Your task to perform on an android device: turn notification dots off Image 0: 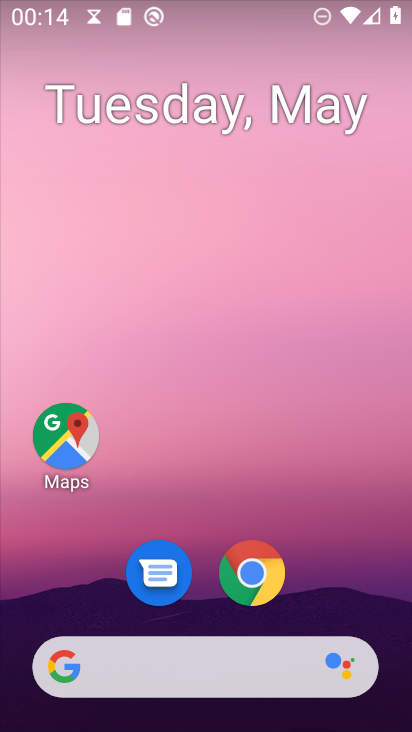
Step 0: drag from (353, 535) to (233, 35)
Your task to perform on an android device: turn notification dots off Image 1: 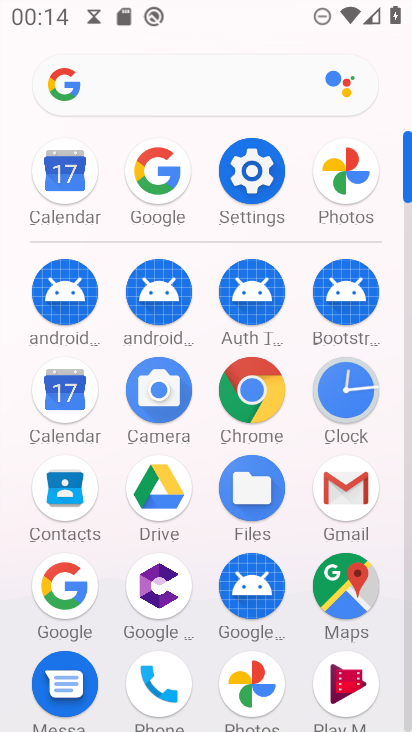
Step 1: click (342, 387)
Your task to perform on an android device: turn notification dots off Image 2: 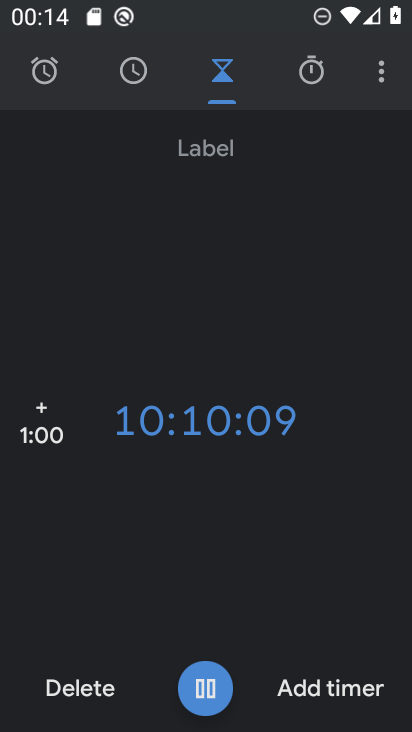
Step 2: press home button
Your task to perform on an android device: turn notification dots off Image 3: 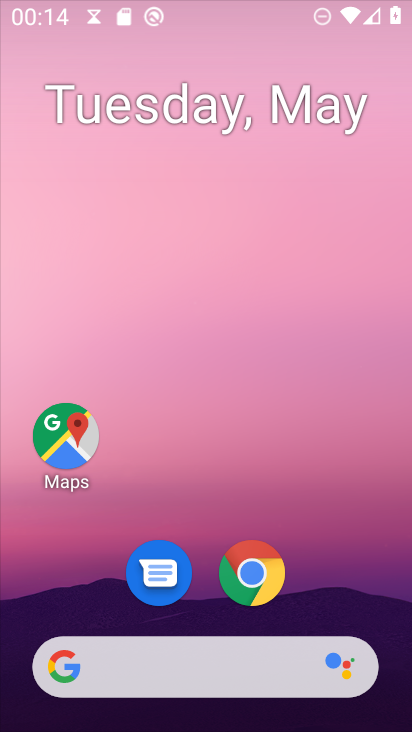
Step 3: drag from (327, 549) to (257, 49)
Your task to perform on an android device: turn notification dots off Image 4: 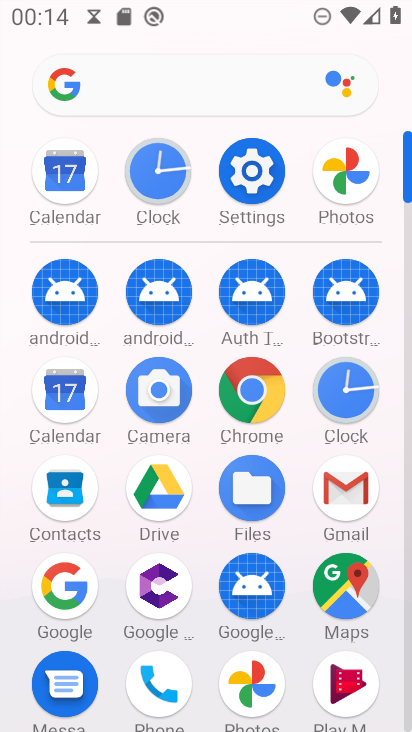
Step 4: click (262, 152)
Your task to perform on an android device: turn notification dots off Image 5: 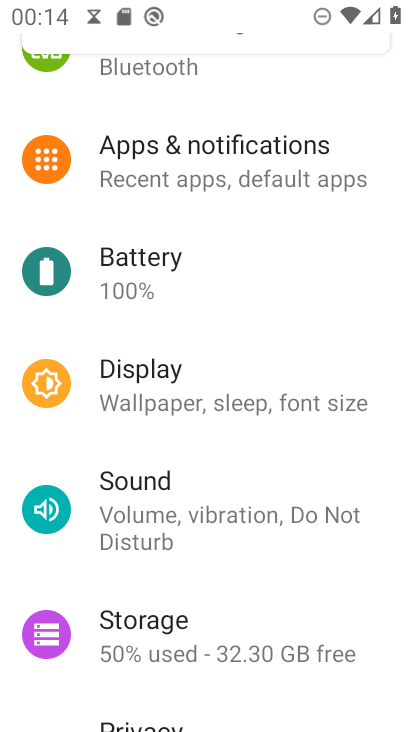
Step 5: click (288, 173)
Your task to perform on an android device: turn notification dots off Image 6: 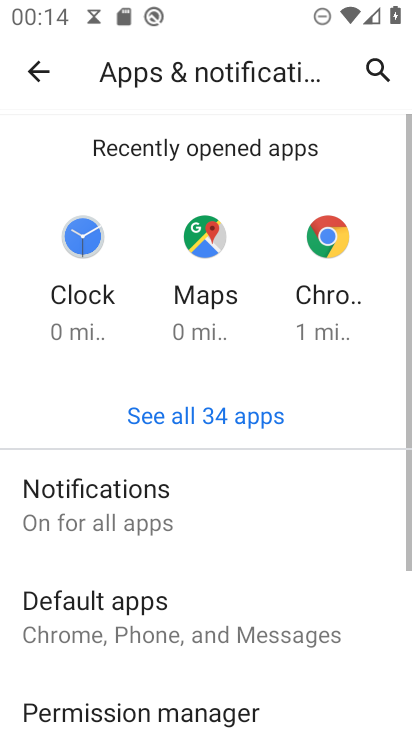
Step 6: click (250, 505)
Your task to perform on an android device: turn notification dots off Image 7: 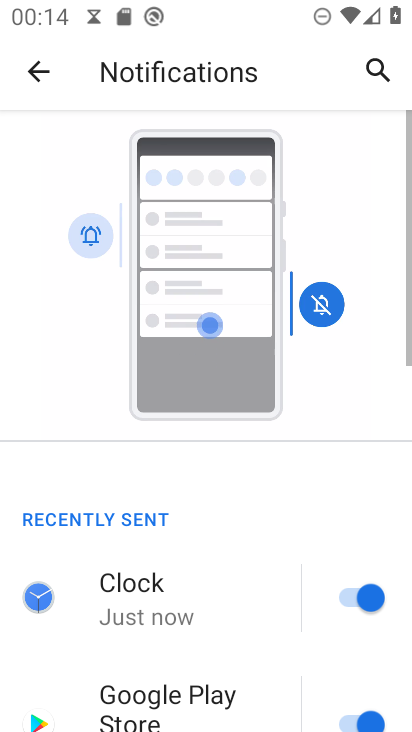
Step 7: drag from (272, 604) to (255, 158)
Your task to perform on an android device: turn notification dots off Image 8: 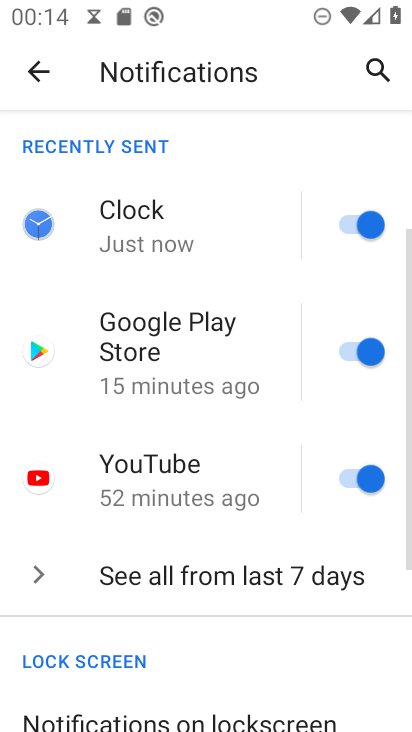
Step 8: drag from (249, 604) to (258, 126)
Your task to perform on an android device: turn notification dots off Image 9: 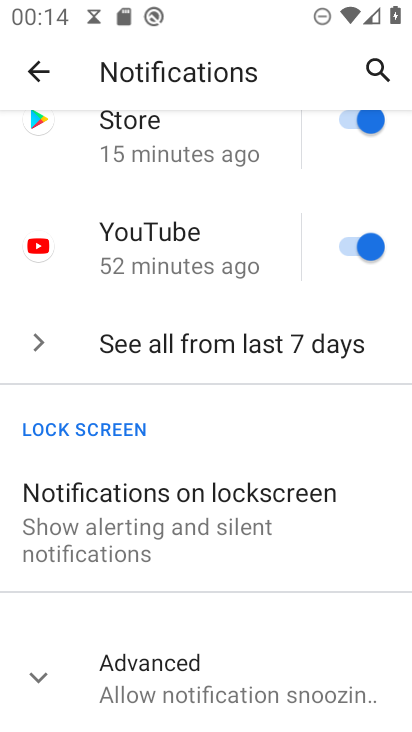
Step 9: click (246, 676)
Your task to perform on an android device: turn notification dots off Image 10: 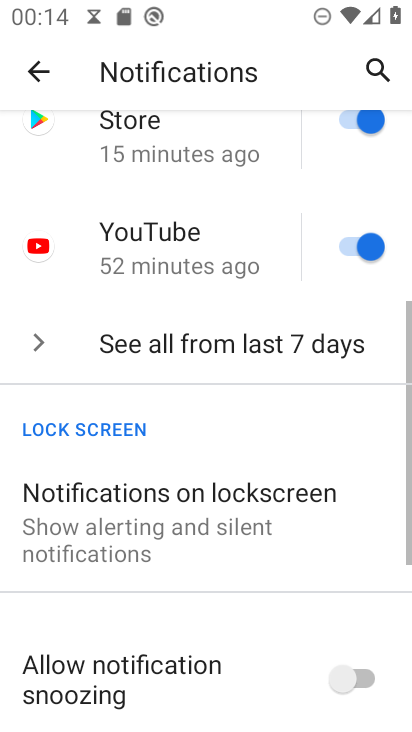
Step 10: drag from (261, 650) to (260, 222)
Your task to perform on an android device: turn notification dots off Image 11: 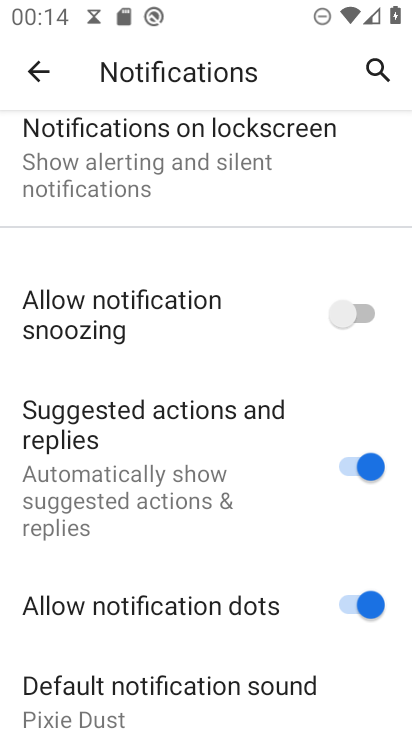
Step 11: click (360, 604)
Your task to perform on an android device: turn notification dots off Image 12: 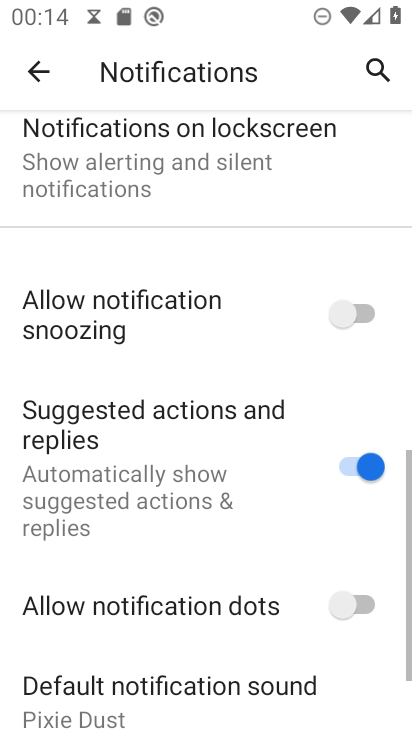
Step 12: task complete